Your task to perform on an android device: Search for Mexican restaurants on Maps Image 0: 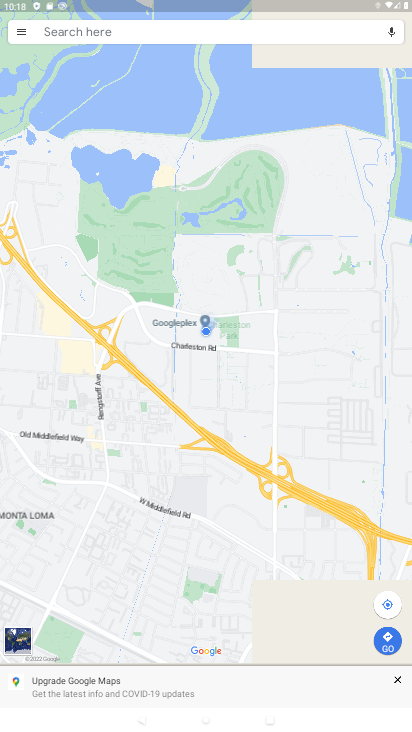
Step 0: press home button
Your task to perform on an android device: Search for Mexican restaurants on Maps Image 1: 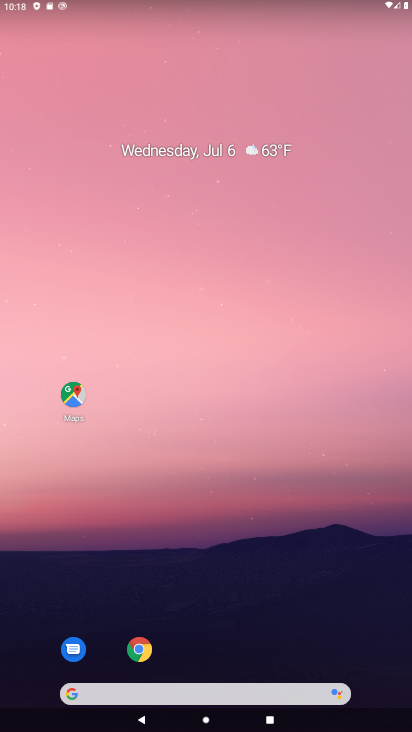
Step 1: click (78, 394)
Your task to perform on an android device: Search for Mexican restaurants on Maps Image 2: 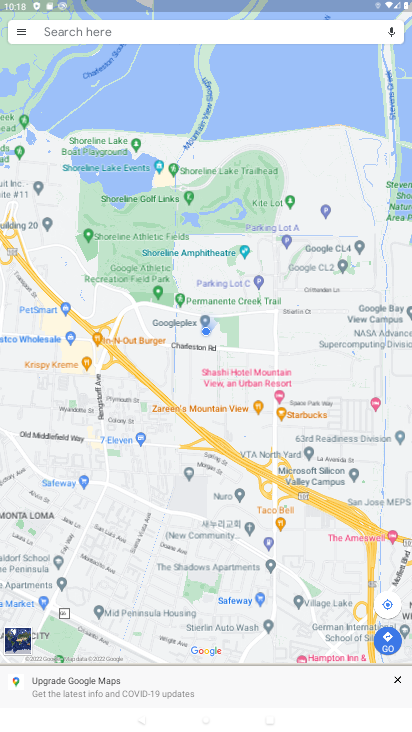
Step 2: click (105, 36)
Your task to perform on an android device: Search for Mexican restaurants on Maps Image 3: 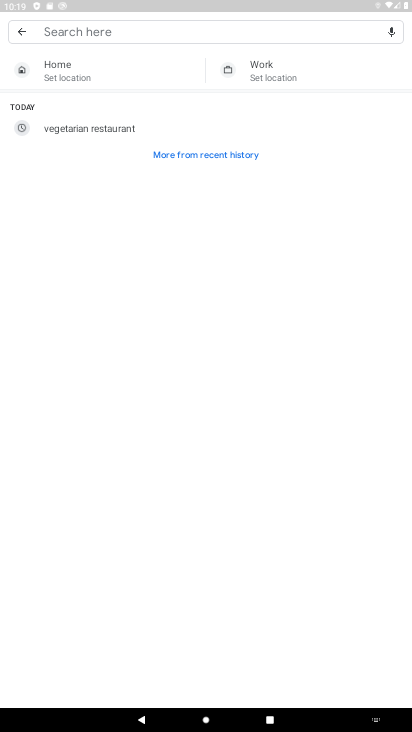
Step 3: type "Mexican restaurants"
Your task to perform on an android device: Search for Mexican restaurants on Maps Image 4: 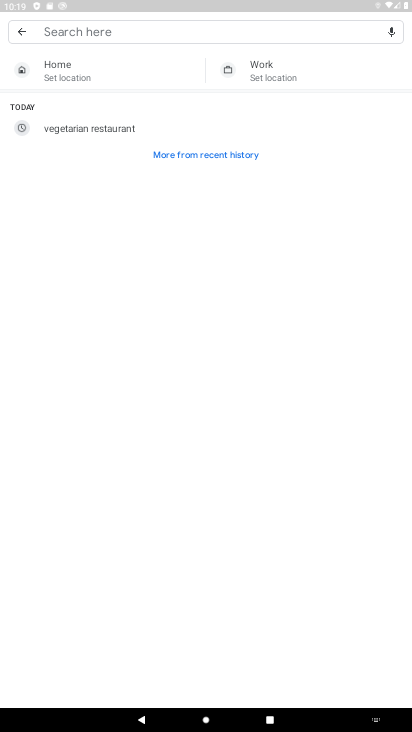
Step 4: click (91, 32)
Your task to perform on an android device: Search for Mexican restaurants on Maps Image 5: 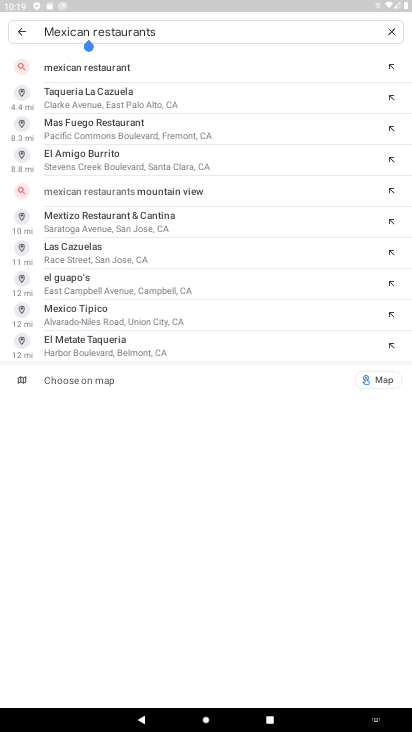
Step 5: click (78, 69)
Your task to perform on an android device: Search for Mexican restaurants on Maps Image 6: 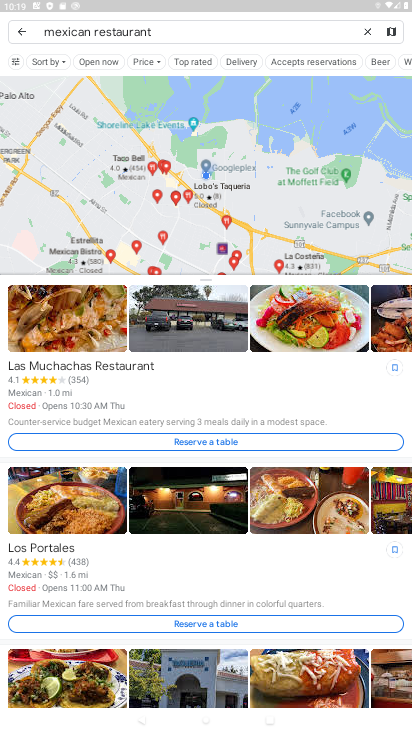
Step 6: task complete